Your task to perform on an android device: Go to CNN.com Image 0: 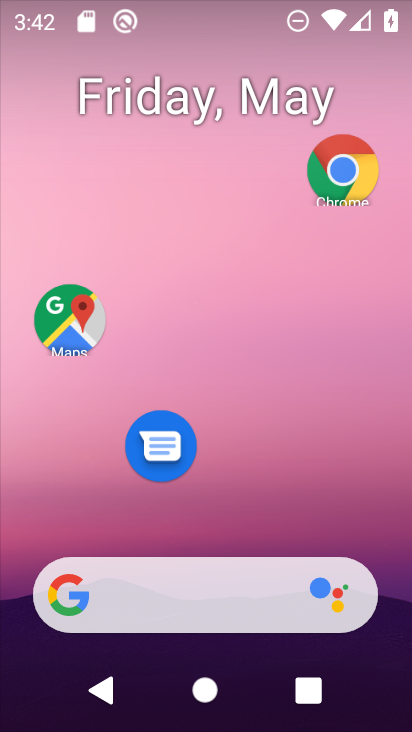
Step 0: drag from (259, 516) to (268, 86)
Your task to perform on an android device: Go to CNN.com Image 1: 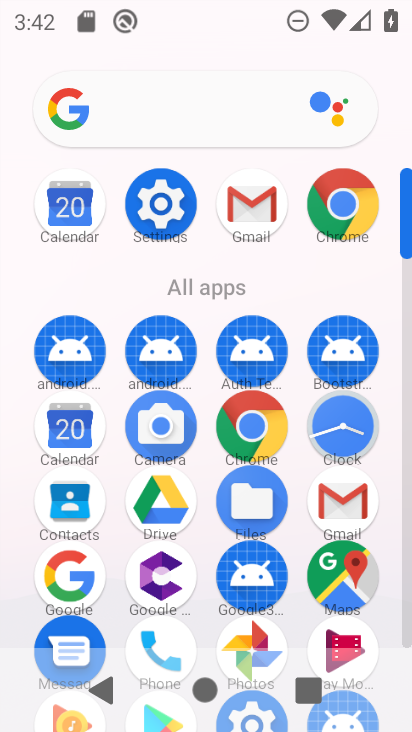
Step 1: click (251, 425)
Your task to perform on an android device: Go to CNN.com Image 2: 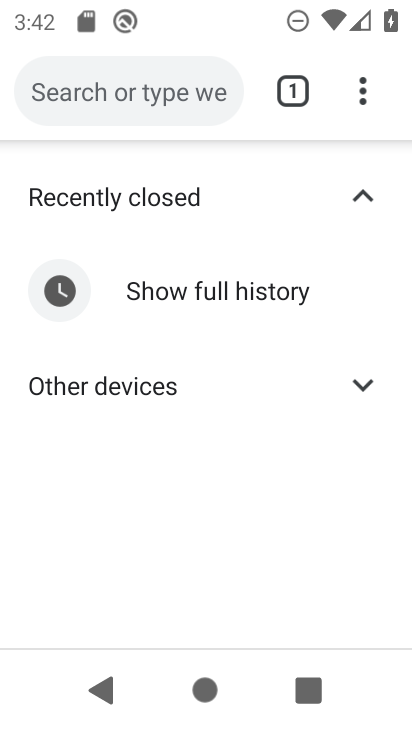
Step 2: click (163, 80)
Your task to perform on an android device: Go to CNN.com Image 3: 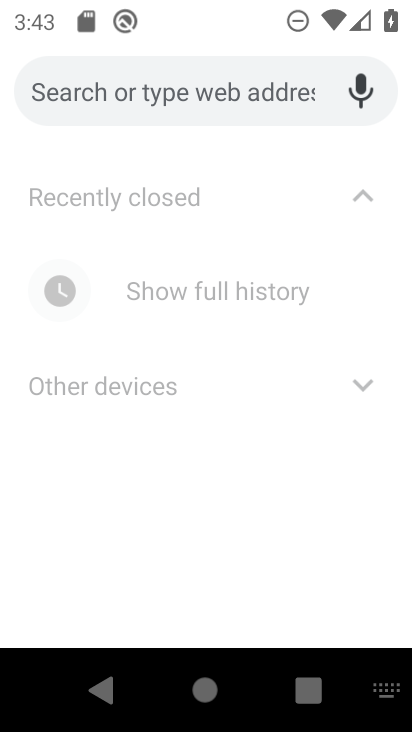
Step 3: type " CNN.com"
Your task to perform on an android device: Go to CNN.com Image 4: 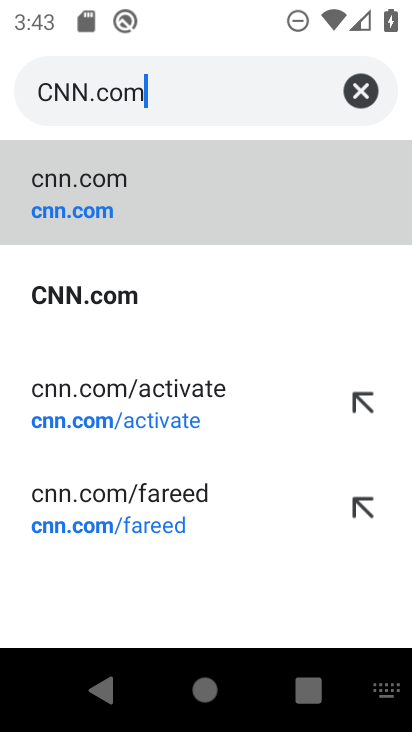
Step 4: click (63, 213)
Your task to perform on an android device: Go to CNN.com Image 5: 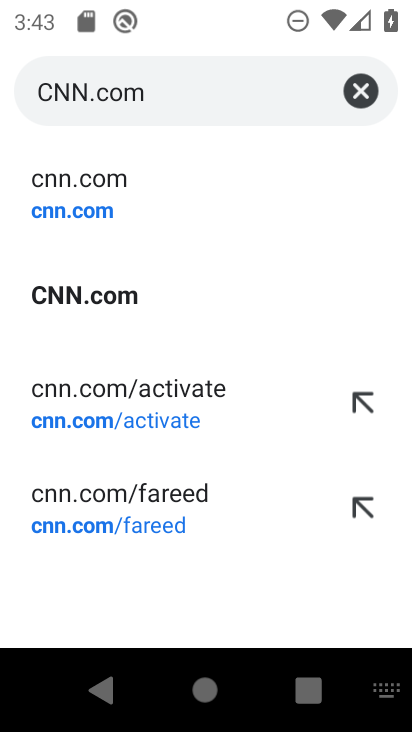
Step 5: click (80, 203)
Your task to perform on an android device: Go to CNN.com Image 6: 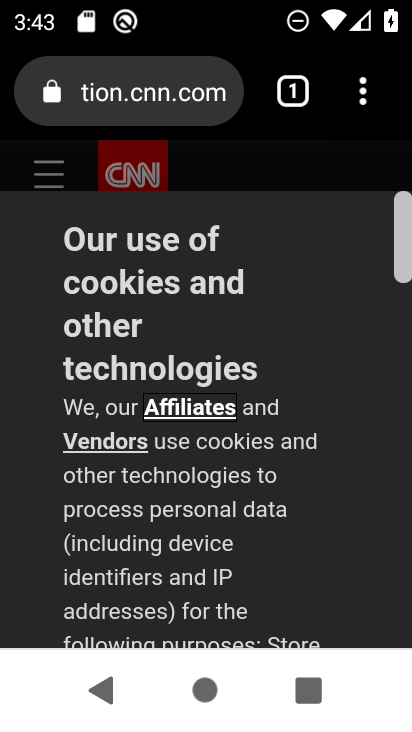
Step 6: task complete